Your task to perform on an android device: turn off location Image 0: 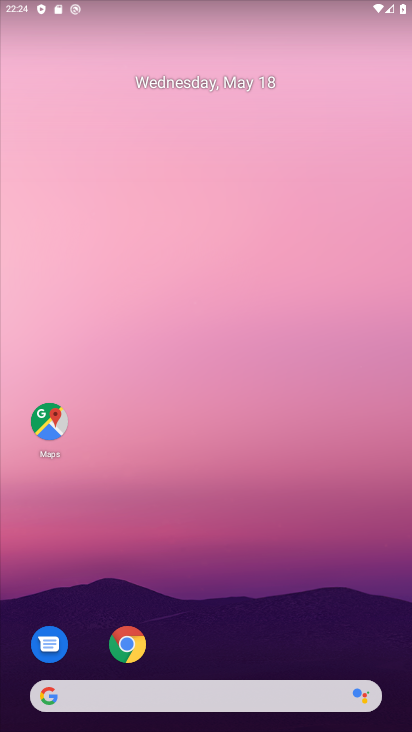
Step 0: drag from (255, 630) to (291, 112)
Your task to perform on an android device: turn off location Image 1: 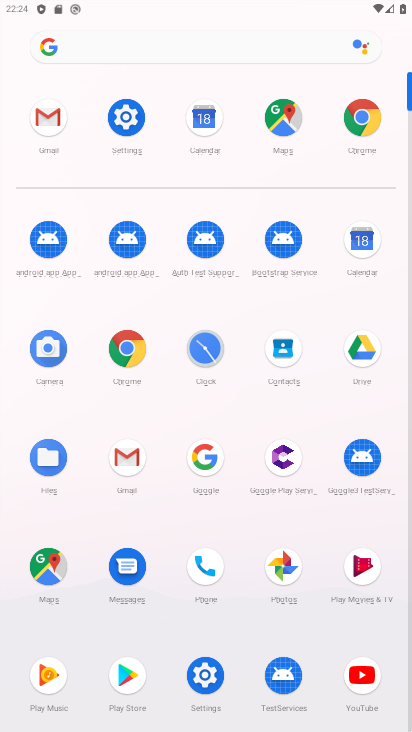
Step 1: click (135, 115)
Your task to perform on an android device: turn off location Image 2: 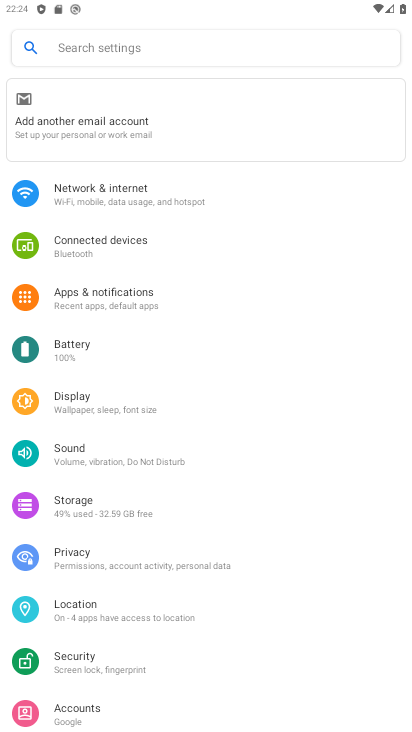
Step 2: drag from (125, 625) to (173, 229)
Your task to perform on an android device: turn off location Image 3: 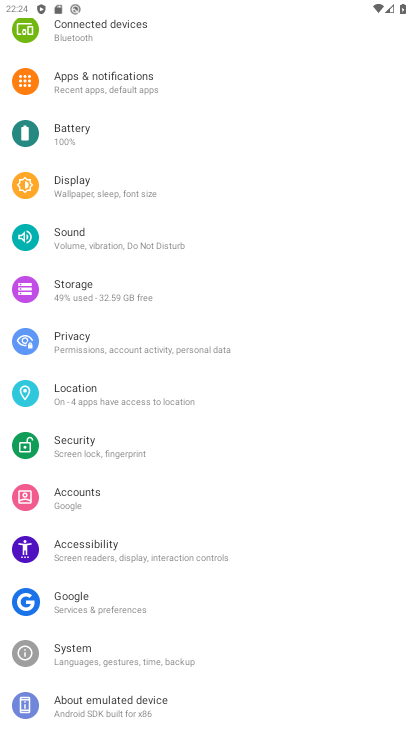
Step 3: click (60, 390)
Your task to perform on an android device: turn off location Image 4: 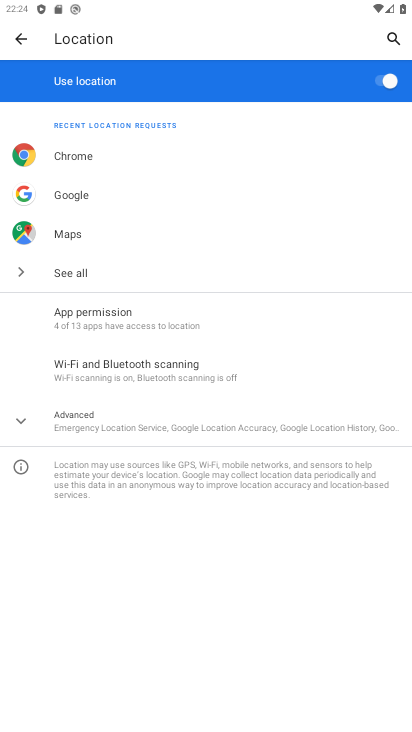
Step 4: click (386, 78)
Your task to perform on an android device: turn off location Image 5: 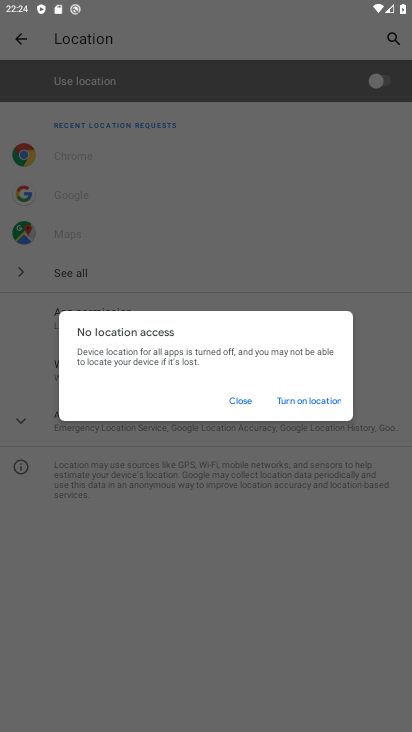
Step 5: task complete